Your task to perform on an android device: Go to Yahoo.com Image 0: 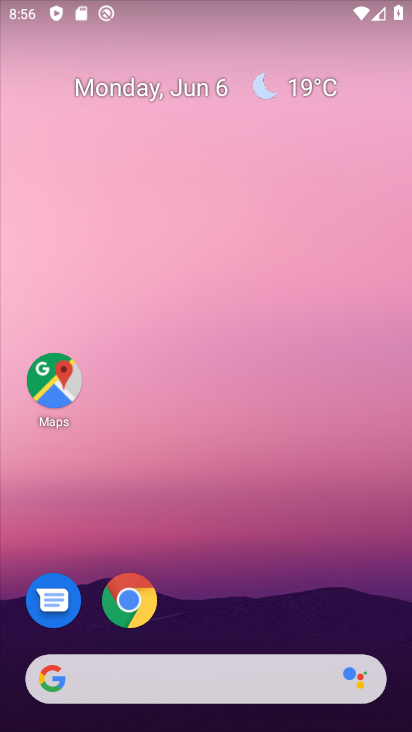
Step 0: click (128, 604)
Your task to perform on an android device: Go to Yahoo.com Image 1: 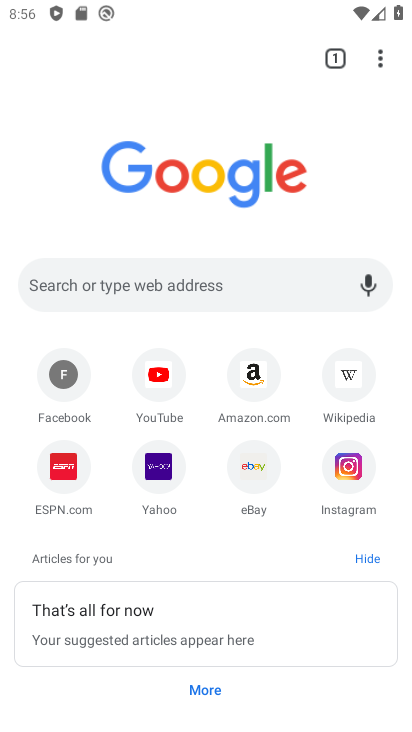
Step 1: click (162, 464)
Your task to perform on an android device: Go to Yahoo.com Image 2: 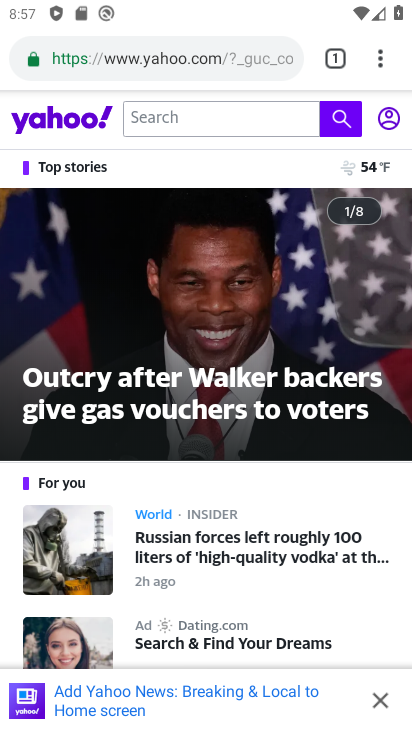
Step 2: task complete